Your task to perform on an android device: toggle show notifications on the lock screen Image 0: 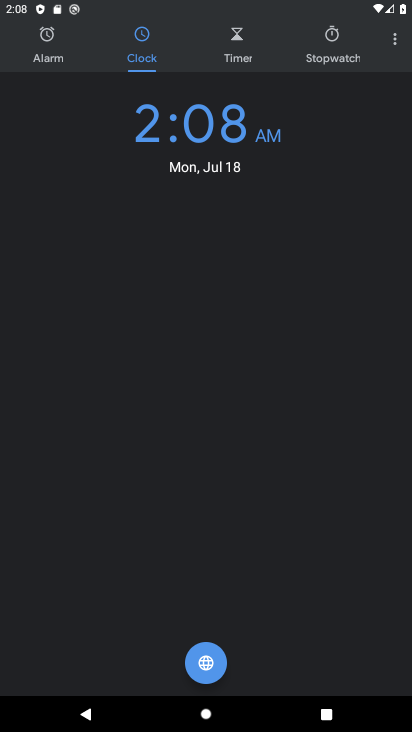
Step 0: press home button
Your task to perform on an android device: toggle show notifications on the lock screen Image 1: 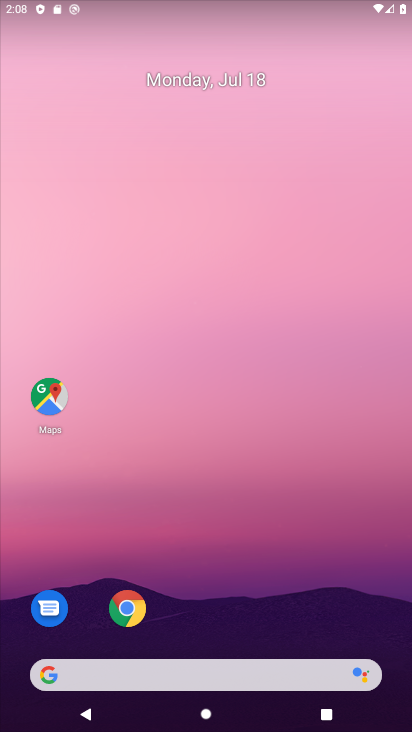
Step 1: drag from (270, 633) to (270, 163)
Your task to perform on an android device: toggle show notifications on the lock screen Image 2: 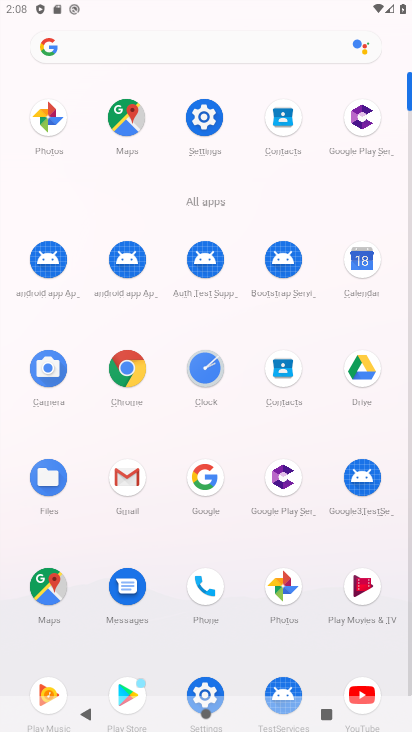
Step 2: click (204, 126)
Your task to perform on an android device: toggle show notifications on the lock screen Image 3: 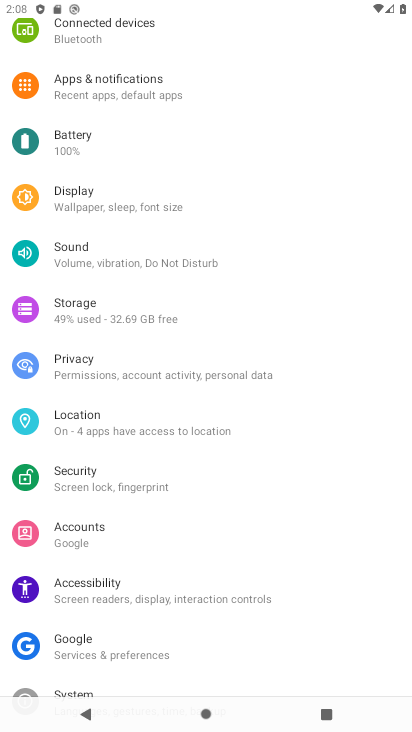
Step 3: click (123, 87)
Your task to perform on an android device: toggle show notifications on the lock screen Image 4: 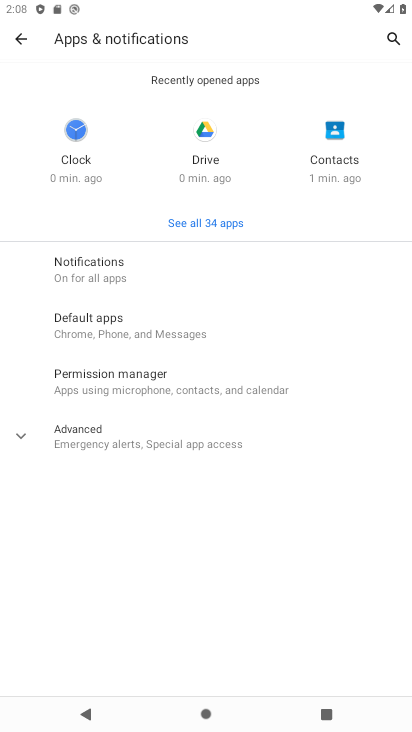
Step 4: click (68, 270)
Your task to perform on an android device: toggle show notifications on the lock screen Image 5: 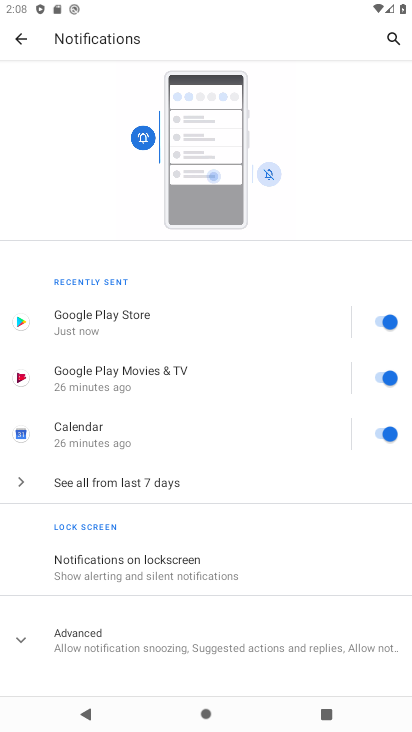
Step 5: click (85, 549)
Your task to perform on an android device: toggle show notifications on the lock screen Image 6: 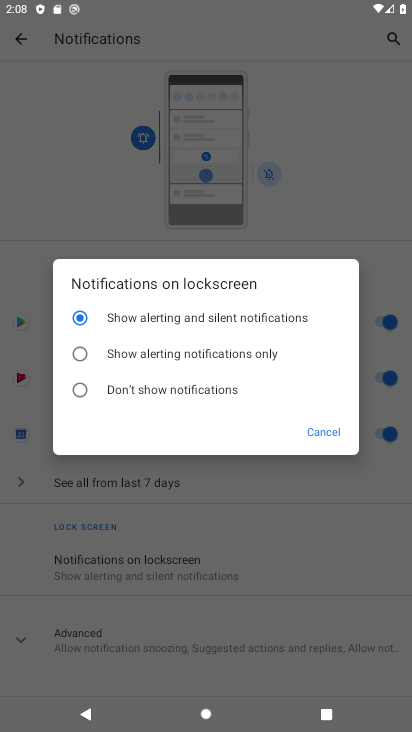
Step 6: click (116, 346)
Your task to perform on an android device: toggle show notifications on the lock screen Image 7: 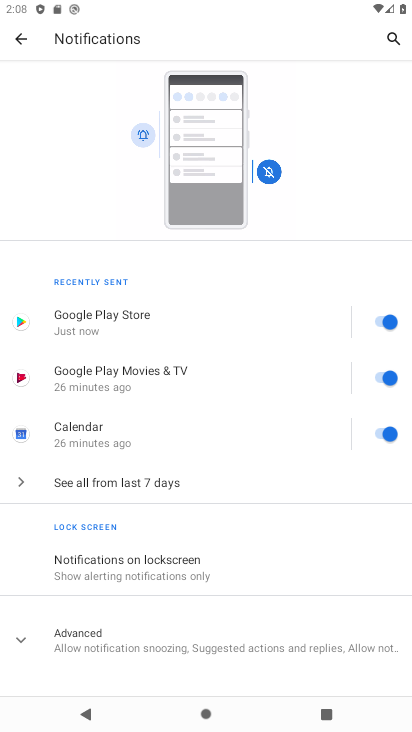
Step 7: task complete